Your task to perform on an android device: Open Chrome and go to settings Image 0: 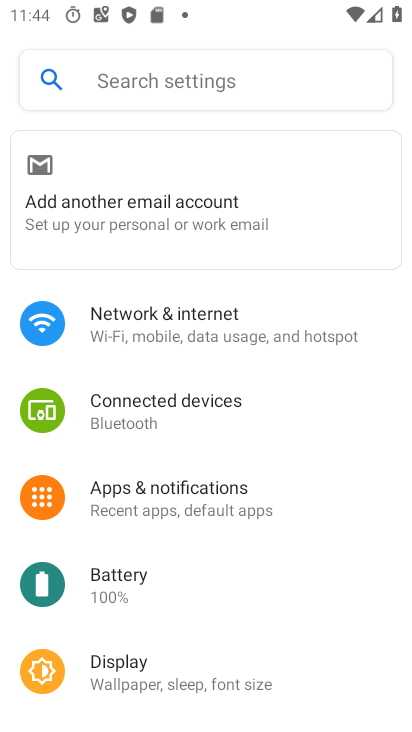
Step 0: press home button
Your task to perform on an android device: Open Chrome and go to settings Image 1: 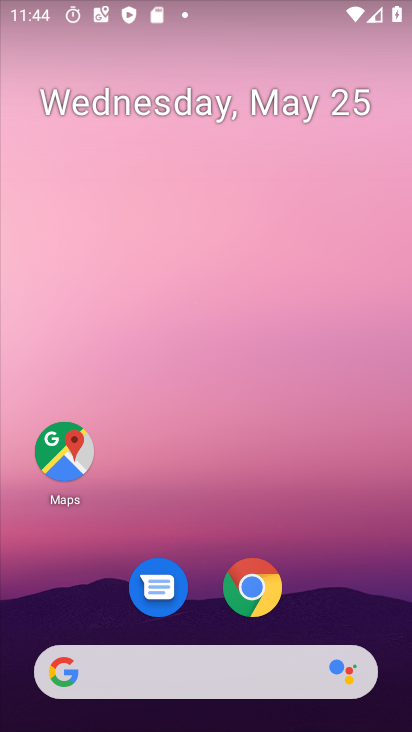
Step 1: drag from (226, 663) to (353, 133)
Your task to perform on an android device: Open Chrome and go to settings Image 2: 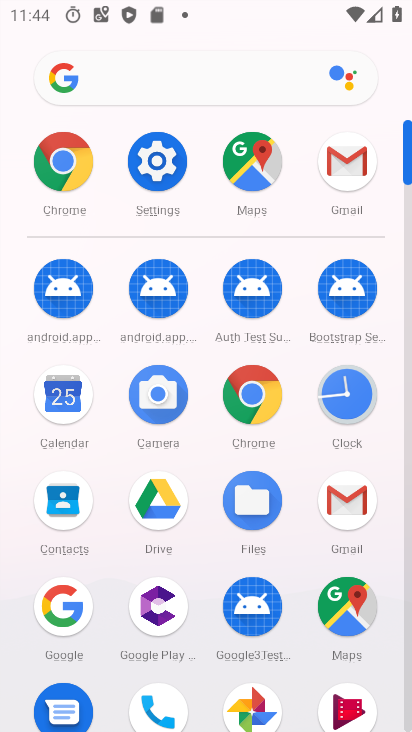
Step 2: click (71, 154)
Your task to perform on an android device: Open Chrome and go to settings Image 3: 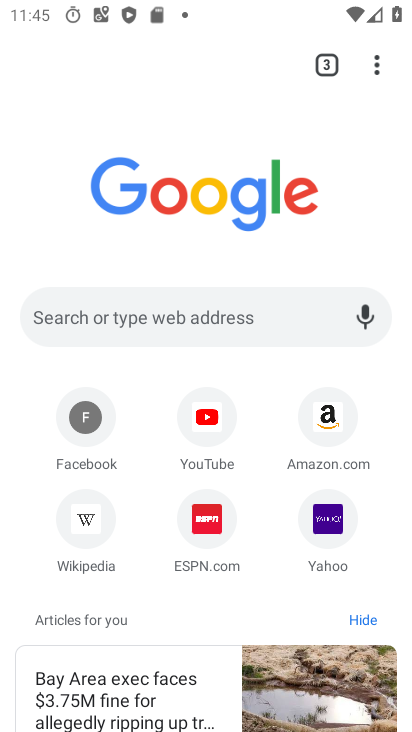
Step 3: click (371, 68)
Your task to perform on an android device: Open Chrome and go to settings Image 4: 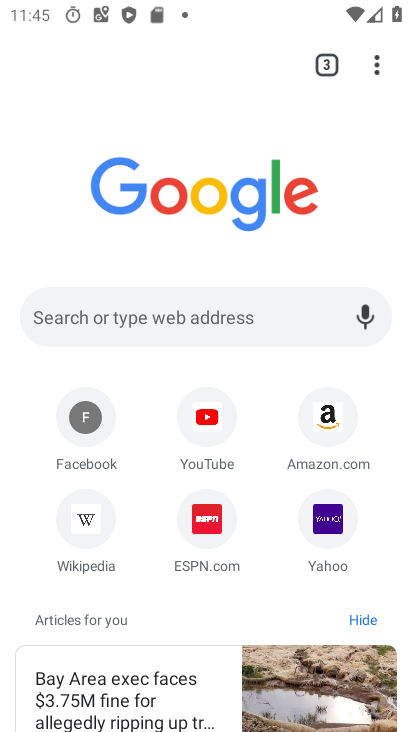
Step 4: click (374, 86)
Your task to perform on an android device: Open Chrome and go to settings Image 5: 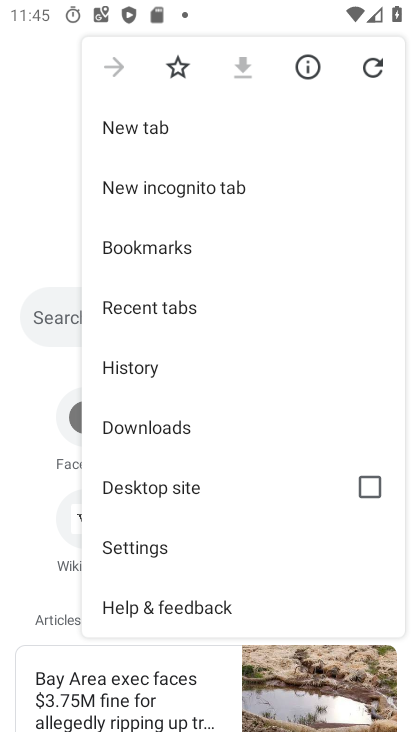
Step 5: click (145, 545)
Your task to perform on an android device: Open Chrome and go to settings Image 6: 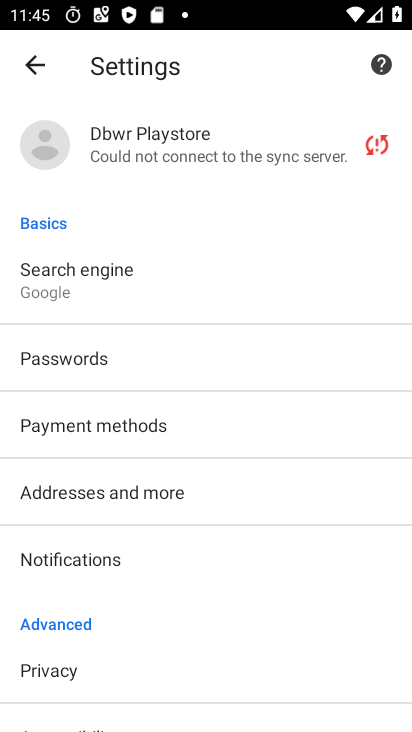
Step 6: task complete